Your task to perform on an android device: Go to Yahoo.com Image 0: 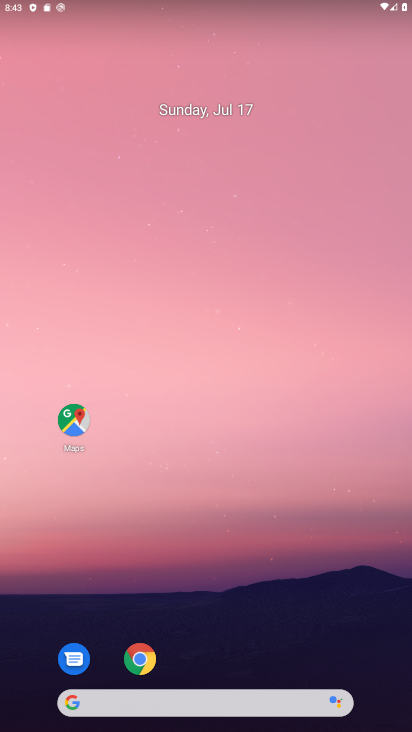
Step 0: press home button
Your task to perform on an android device: Go to Yahoo.com Image 1: 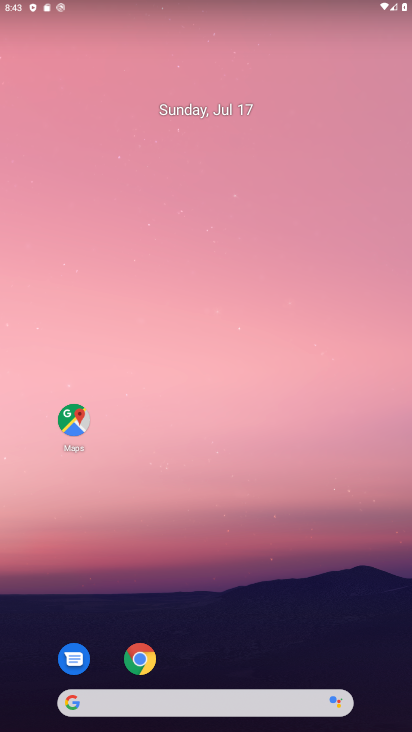
Step 1: click (131, 659)
Your task to perform on an android device: Go to Yahoo.com Image 2: 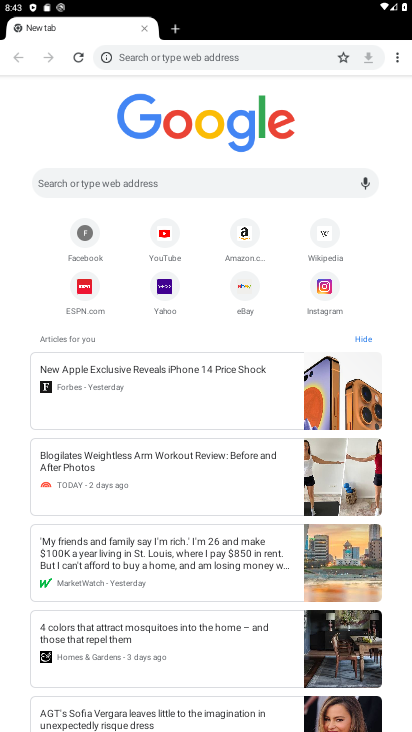
Step 2: click (165, 282)
Your task to perform on an android device: Go to Yahoo.com Image 3: 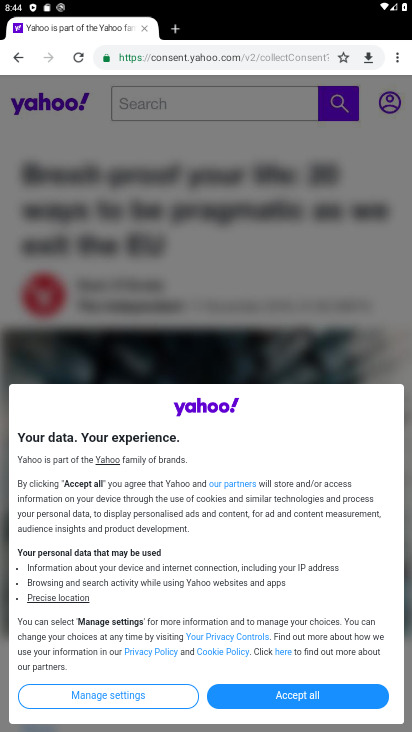
Step 3: click (314, 692)
Your task to perform on an android device: Go to Yahoo.com Image 4: 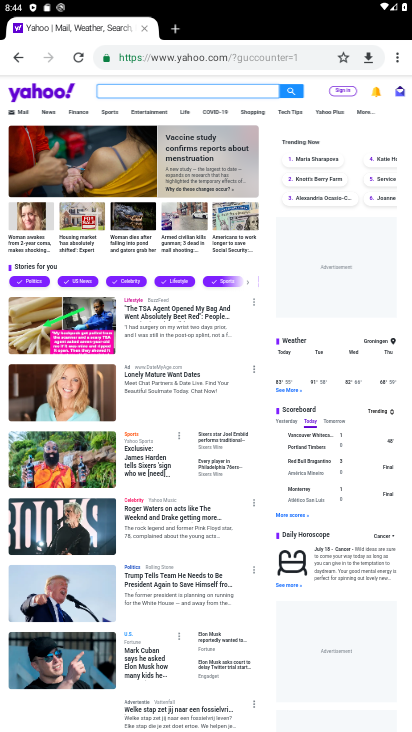
Step 4: task complete